Your task to perform on an android device: Go to Reddit.com Image 0: 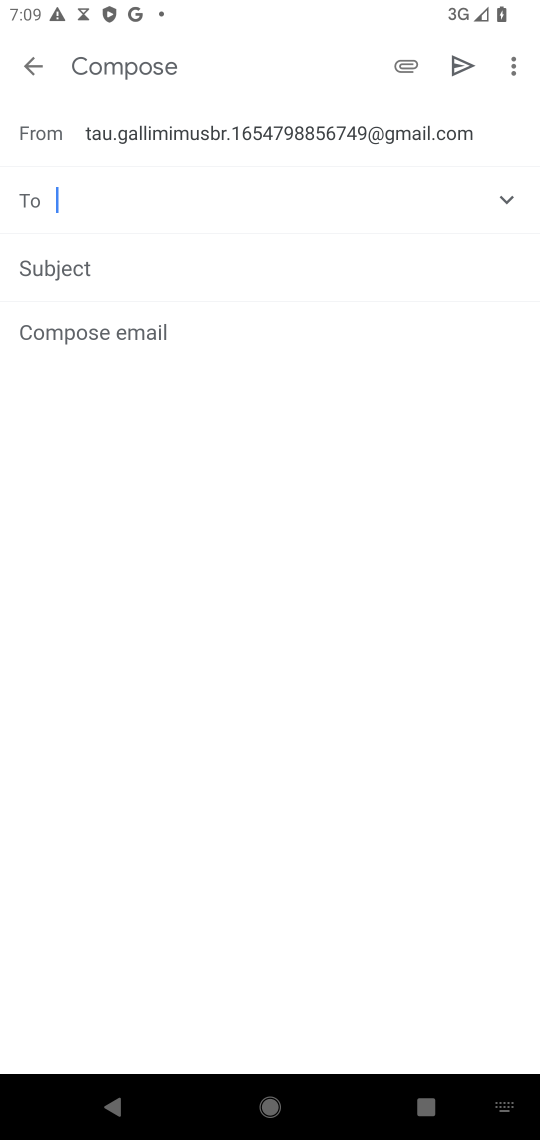
Step 0: press home button
Your task to perform on an android device: Go to Reddit.com Image 1: 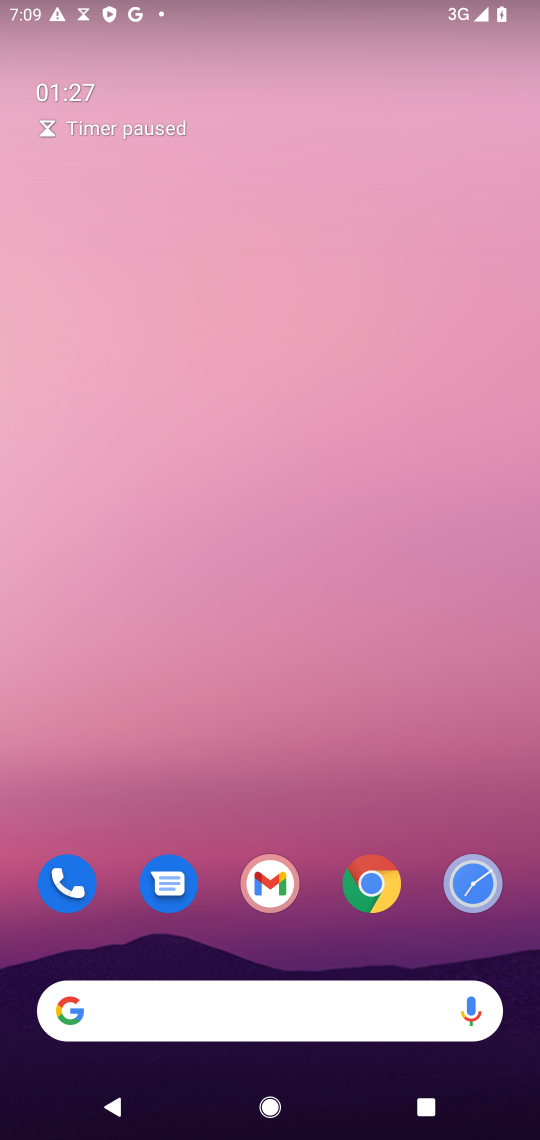
Step 1: click (372, 886)
Your task to perform on an android device: Go to Reddit.com Image 2: 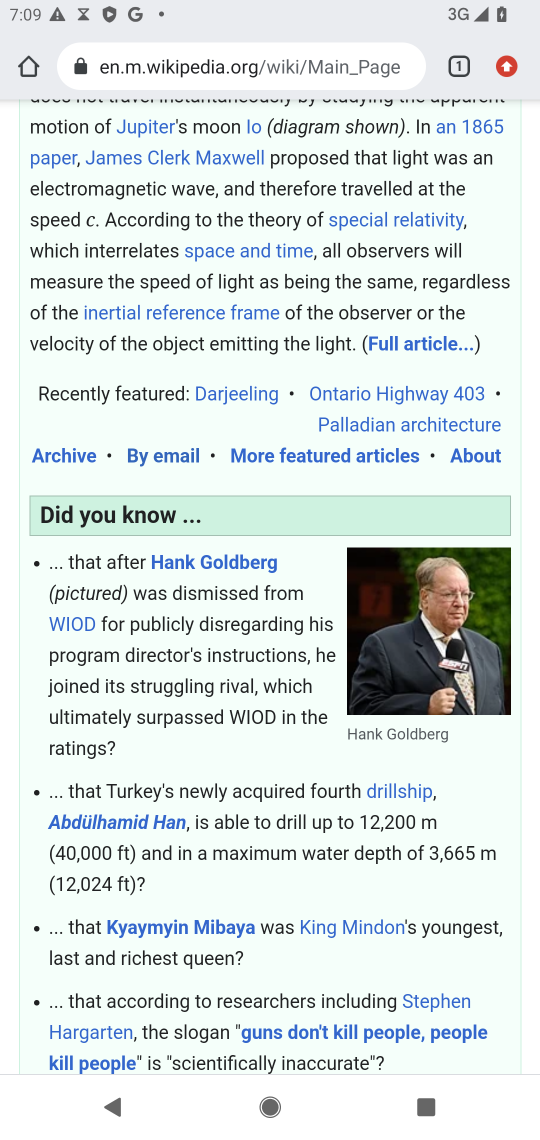
Step 2: click (394, 70)
Your task to perform on an android device: Go to Reddit.com Image 3: 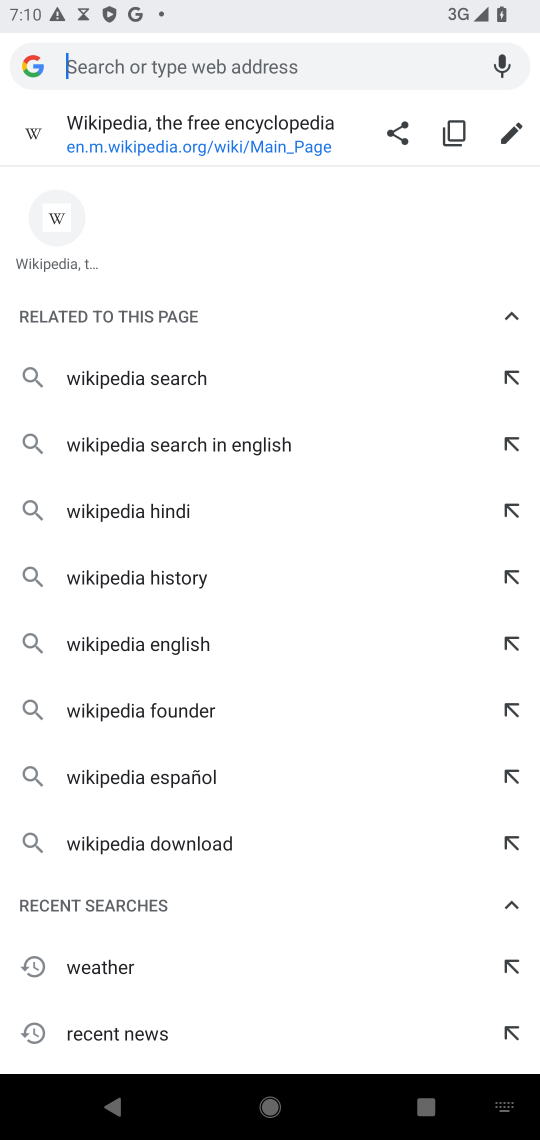
Step 3: type "Reddit.com"
Your task to perform on an android device: Go to Reddit.com Image 4: 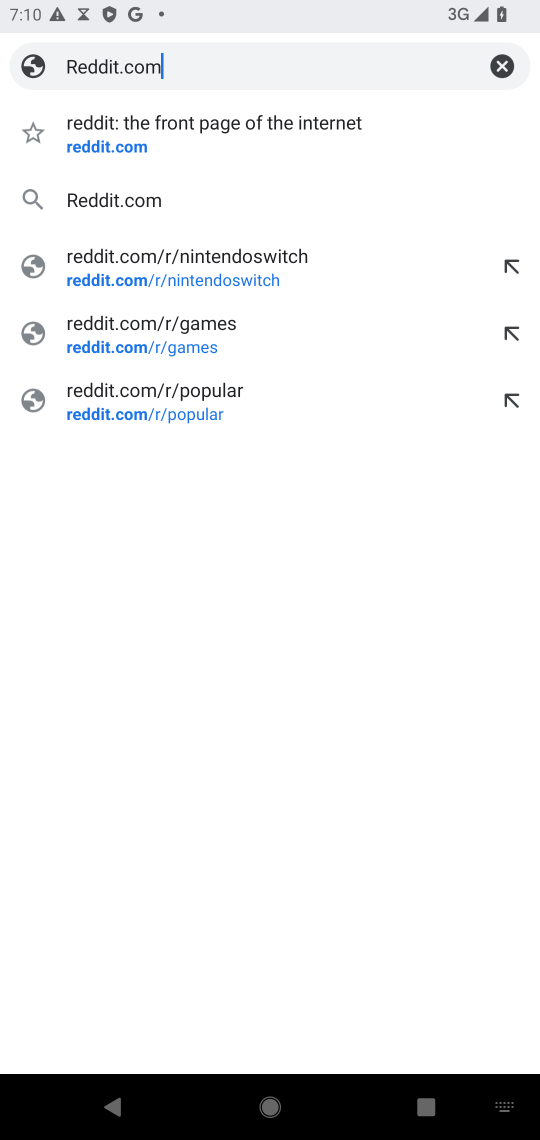
Step 4: click (105, 203)
Your task to perform on an android device: Go to Reddit.com Image 5: 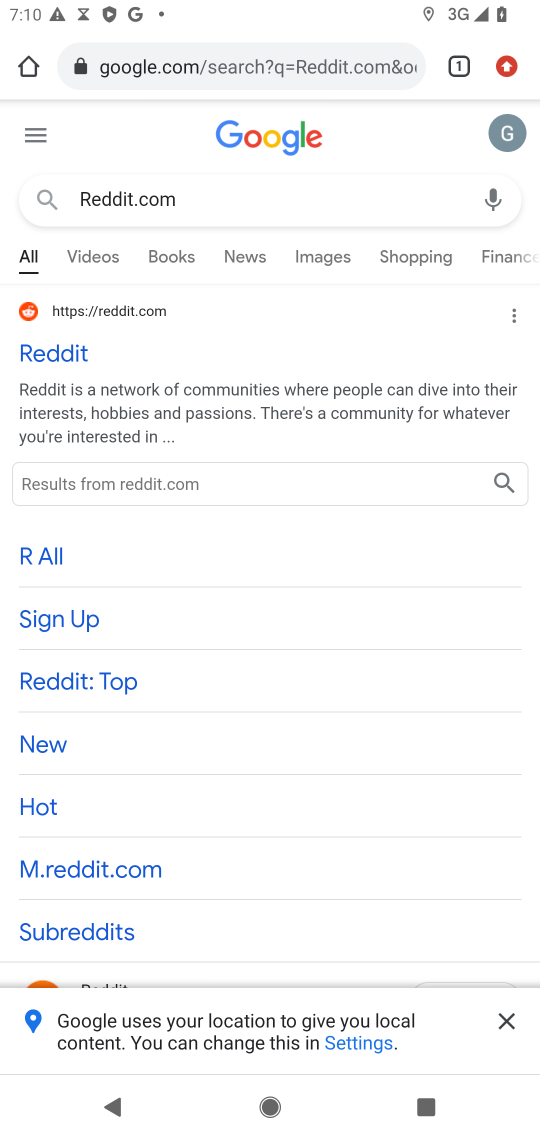
Step 5: click (74, 367)
Your task to perform on an android device: Go to Reddit.com Image 6: 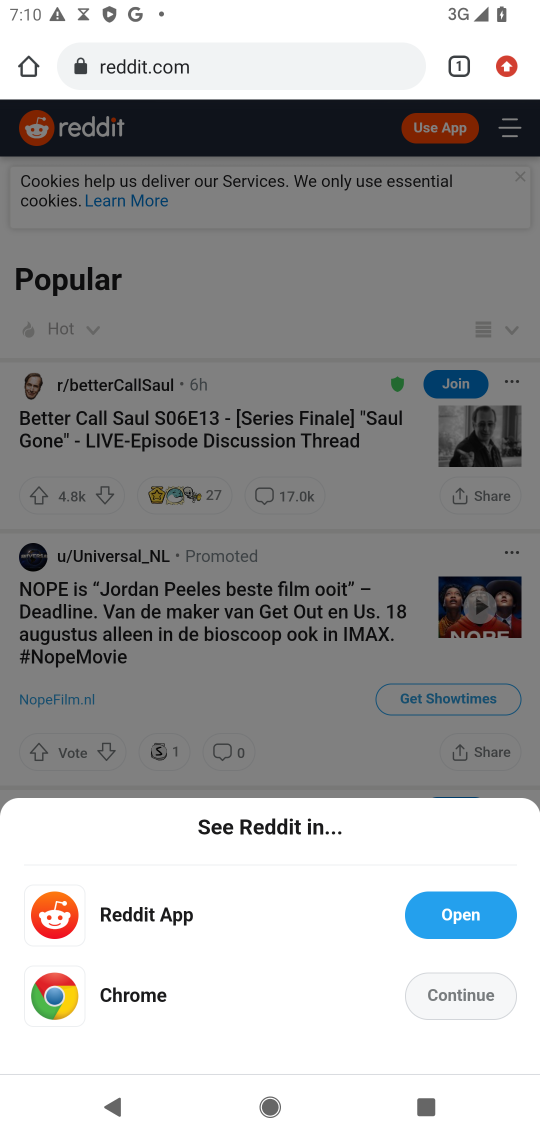
Step 6: click (460, 998)
Your task to perform on an android device: Go to Reddit.com Image 7: 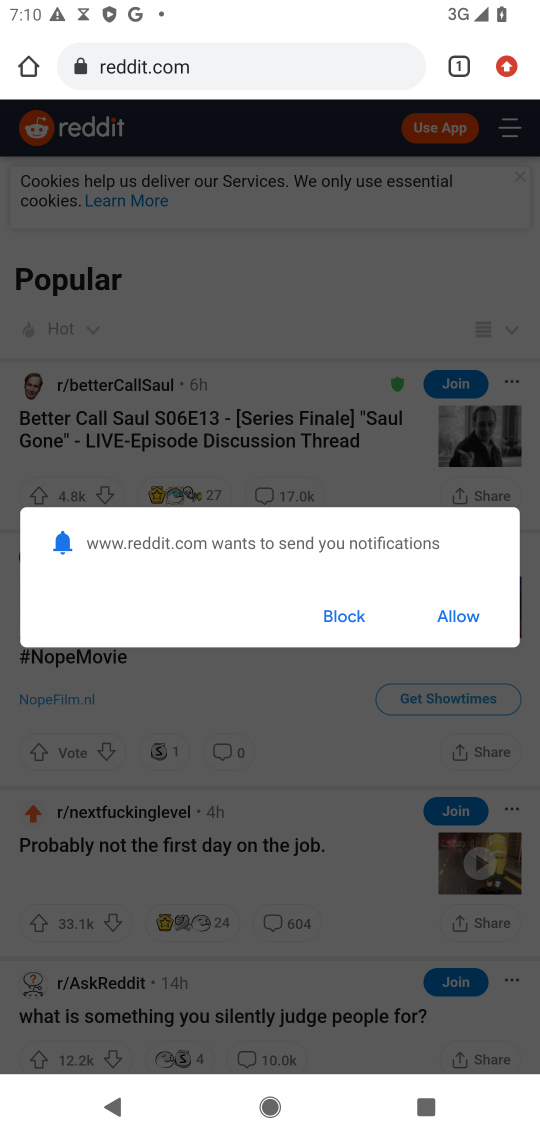
Step 7: click (462, 620)
Your task to perform on an android device: Go to Reddit.com Image 8: 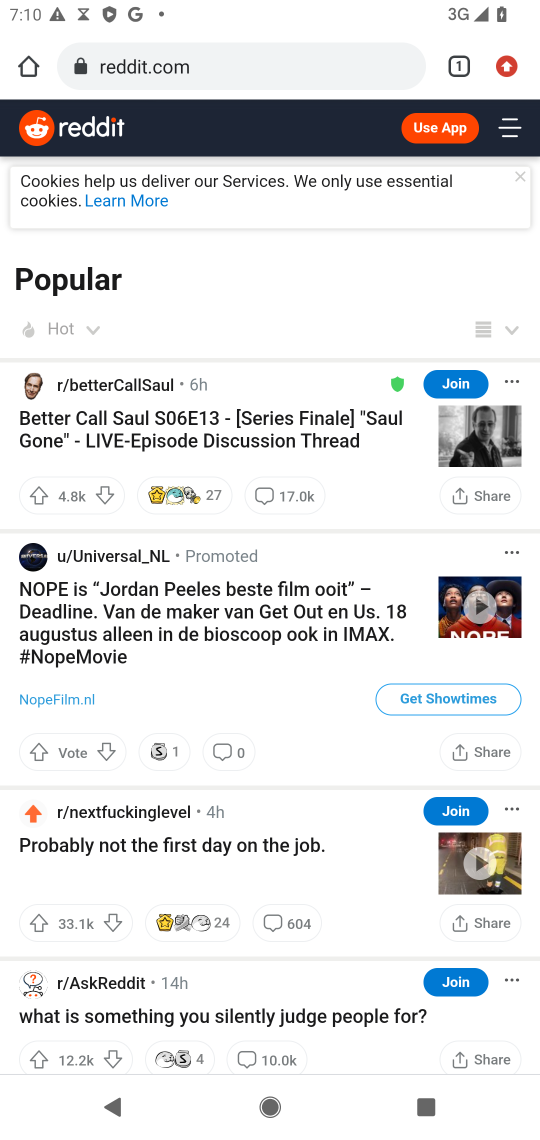
Step 8: task complete